Your task to perform on an android device: Go to wifi settings Image 0: 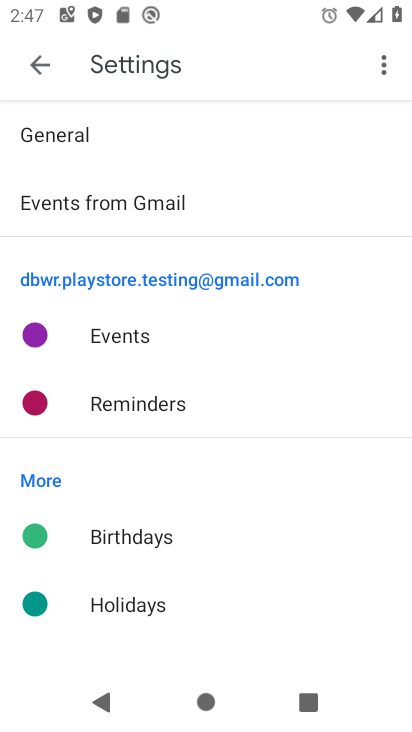
Step 0: press back button
Your task to perform on an android device: Go to wifi settings Image 1: 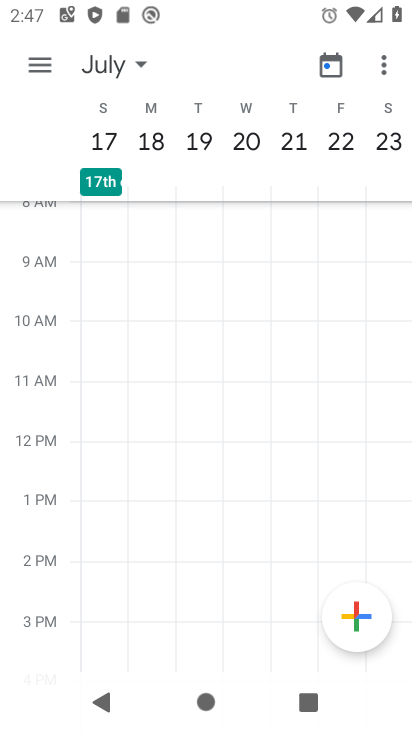
Step 1: press back button
Your task to perform on an android device: Go to wifi settings Image 2: 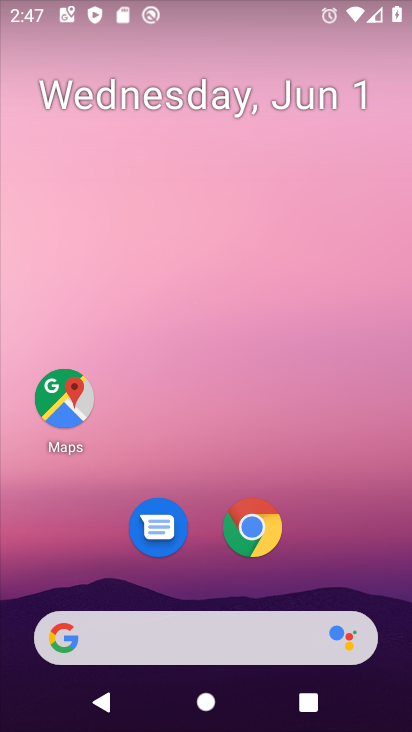
Step 2: drag from (318, 567) to (255, 115)
Your task to perform on an android device: Go to wifi settings Image 3: 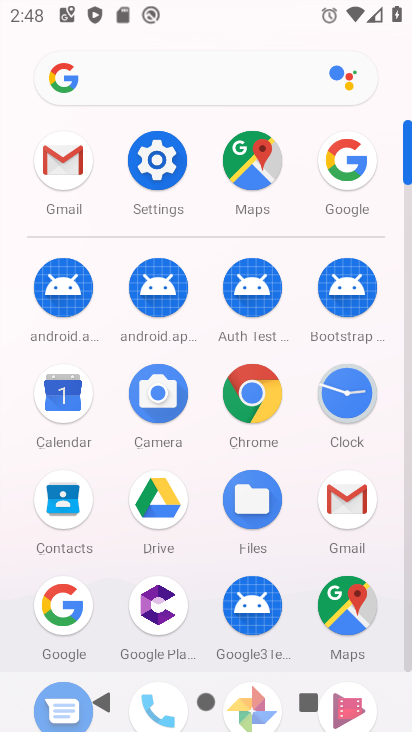
Step 3: click (158, 157)
Your task to perform on an android device: Go to wifi settings Image 4: 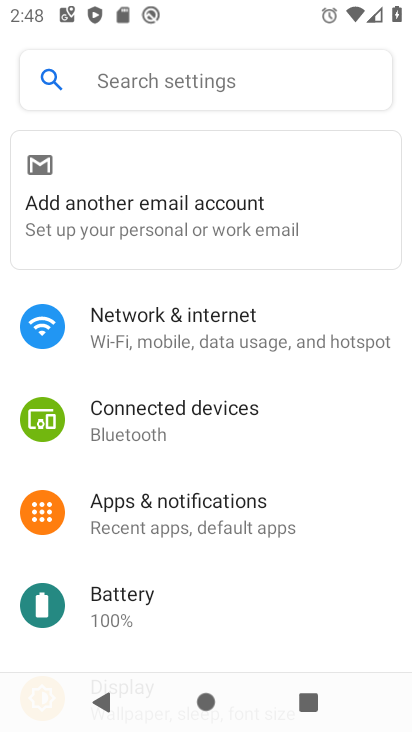
Step 4: click (160, 320)
Your task to perform on an android device: Go to wifi settings Image 5: 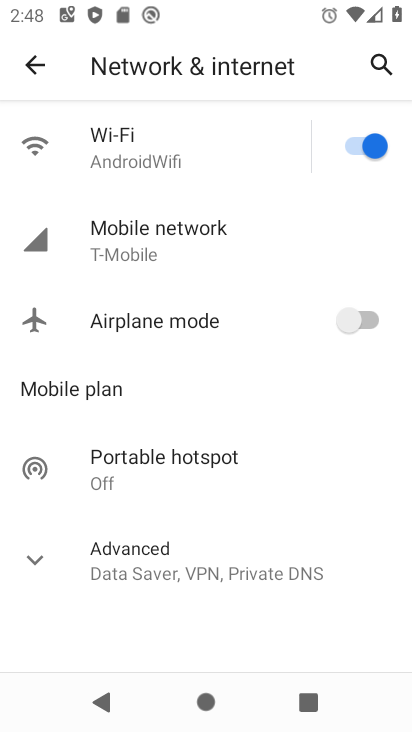
Step 5: click (157, 162)
Your task to perform on an android device: Go to wifi settings Image 6: 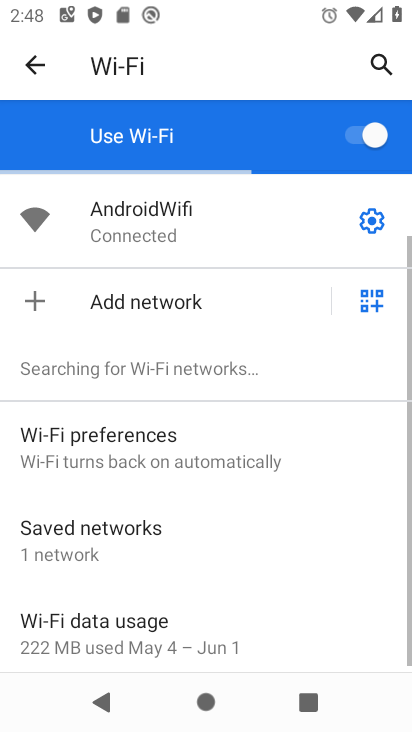
Step 6: click (370, 220)
Your task to perform on an android device: Go to wifi settings Image 7: 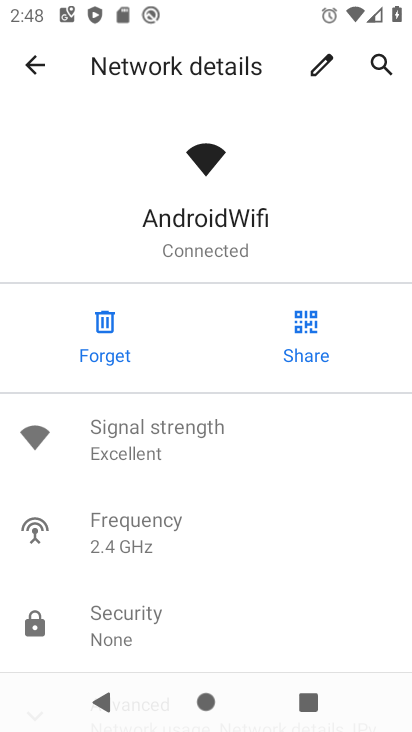
Step 7: task complete